Your task to perform on an android device: clear all cookies in the chrome app Image 0: 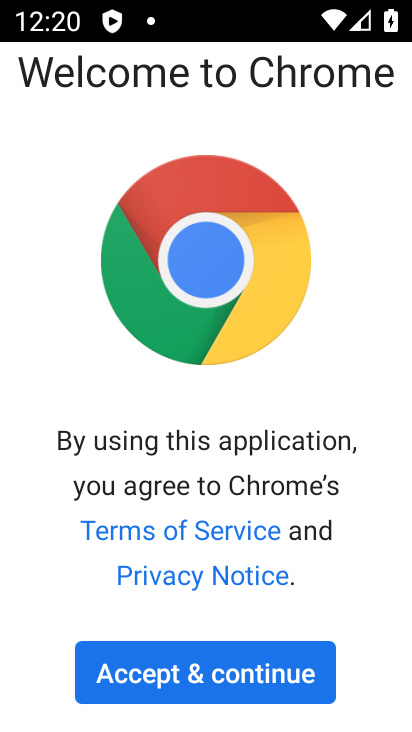
Step 0: click (178, 675)
Your task to perform on an android device: clear all cookies in the chrome app Image 1: 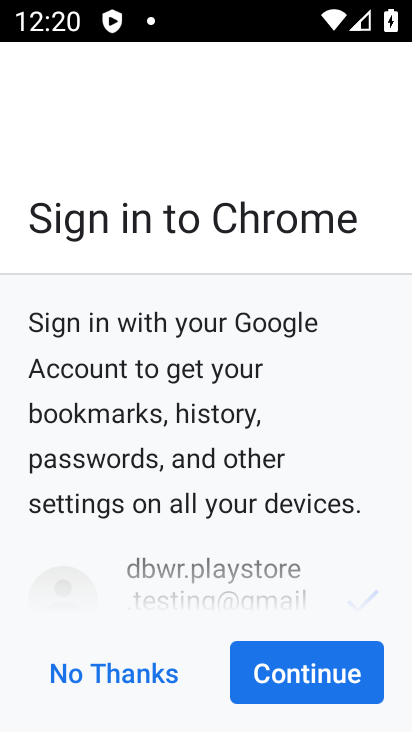
Step 1: click (312, 680)
Your task to perform on an android device: clear all cookies in the chrome app Image 2: 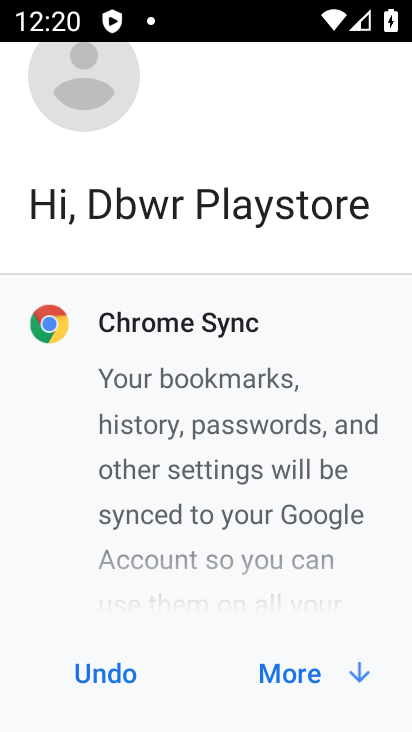
Step 2: click (312, 680)
Your task to perform on an android device: clear all cookies in the chrome app Image 3: 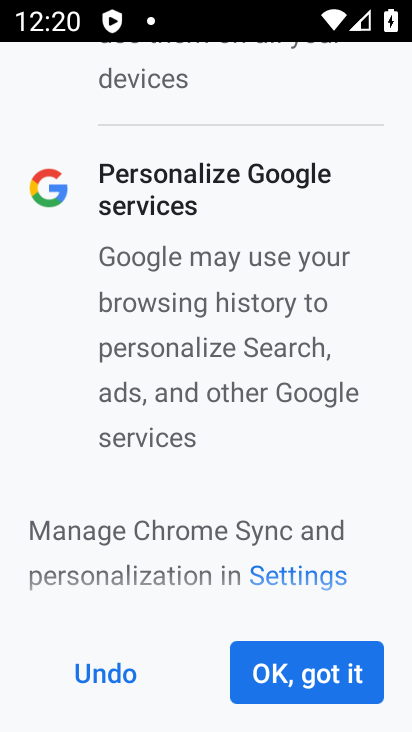
Step 3: click (312, 680)
Your task to perform on an android device: clear all cookies in the chrome app Image 4: 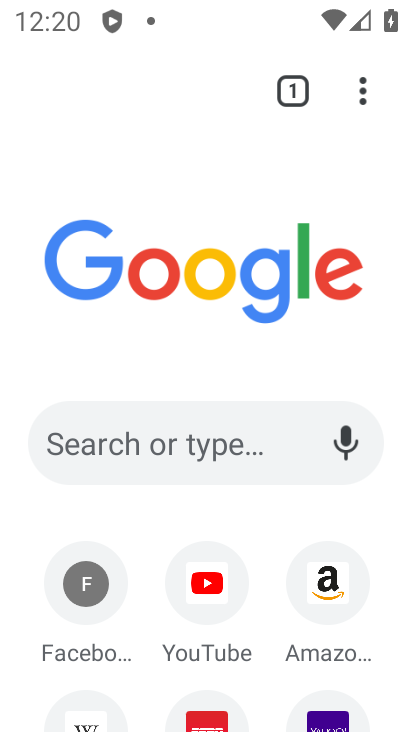
Step 4: click (363, 87)
Your task to perform on an android device: clear all cookies in the chrome app Image 5: 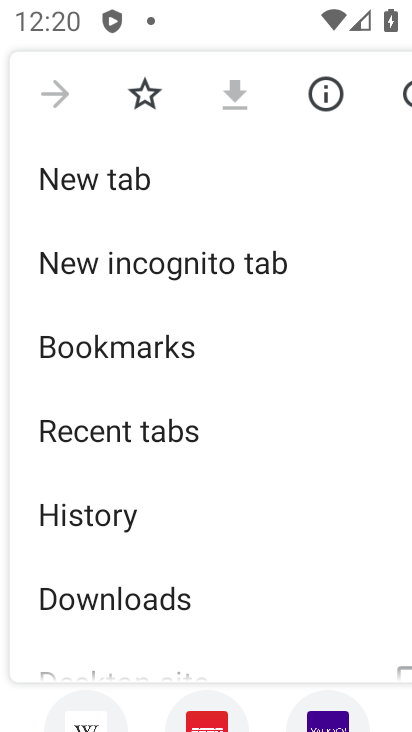
Step 5: drag from (130, 480) to (140, 351)
Your task to perform on an android device: clear all cookies in the chrome app Image 6: 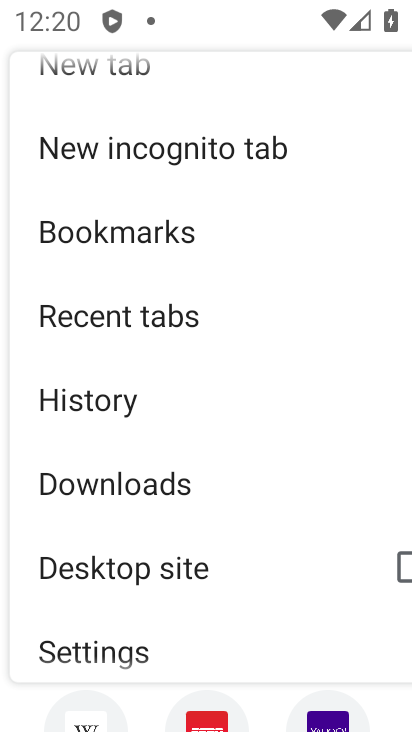
Step 6: drag from (109, 516) to (154, 348)
Your task to perform on an android device: clear all cookies in the chrome app Image 7: 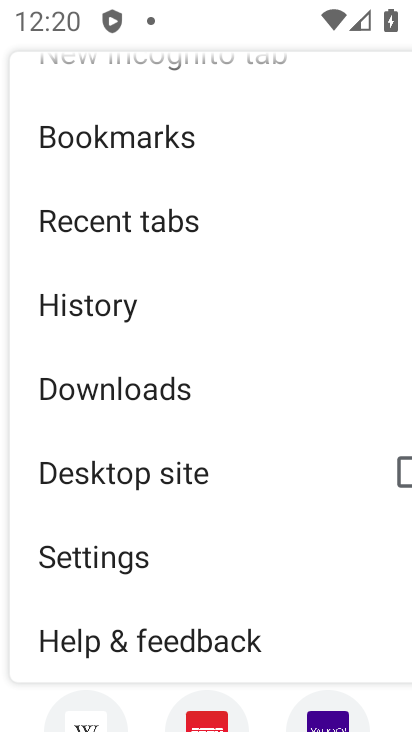
Step 7: drag from (96, 515) to (147, 352)
Your task to perform on an android device: clear all cookies in the chrome app Image 8: 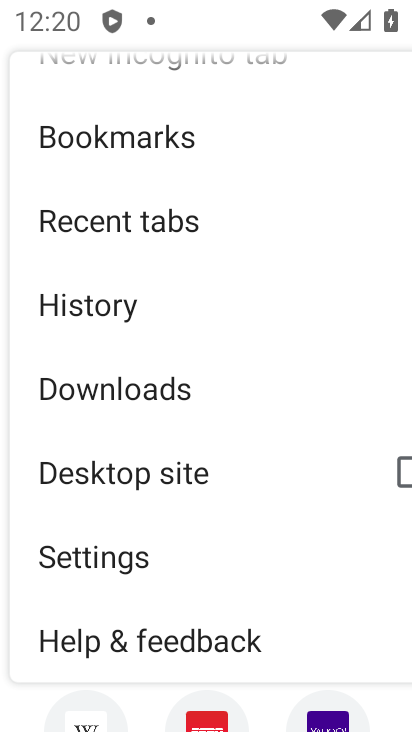
Step 8: drag from (103, 595) to (144, 326)
Your task to perform on an android device: clear all cookies in the chrome app Image 9: 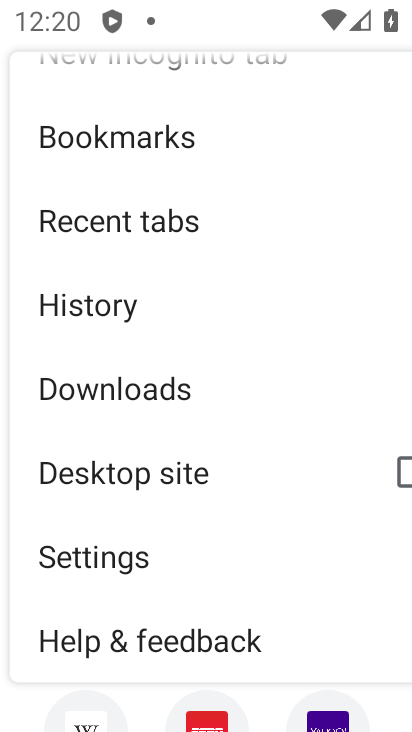
Step 9: click (88, 554)
Your task to perform on an android device: clear all cookies in the chrome app Image 10: 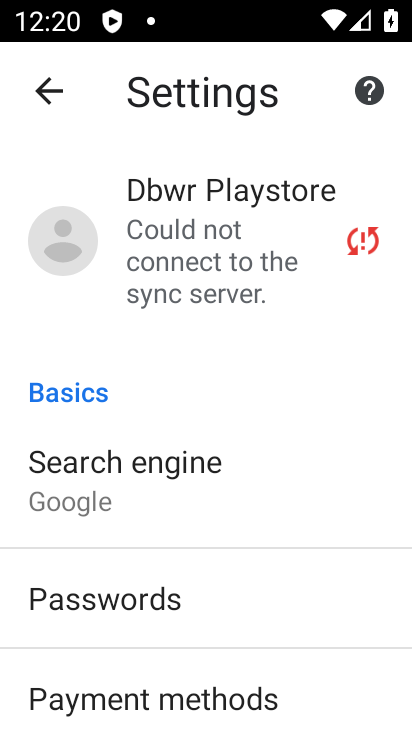
Step 10: drag from (105, 634) to (212, 373)
Your task to perform on an android device: clear all cookies in the chrome app Image 11: 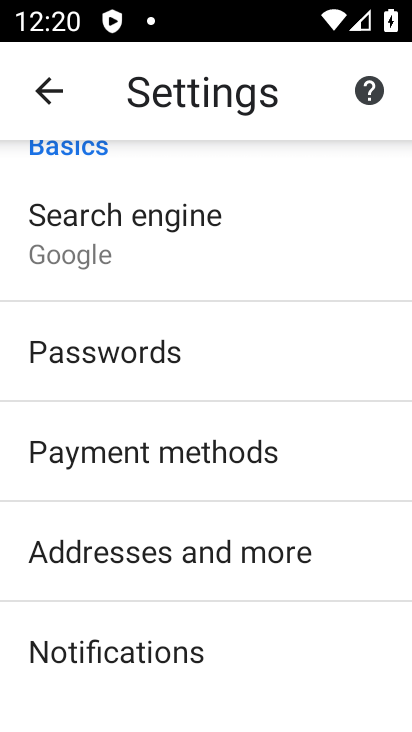
Step 11: drag from (129, 617) to (247, 385)
Your task to perform on an android device: clear all cookies in the chrome app Image 12: 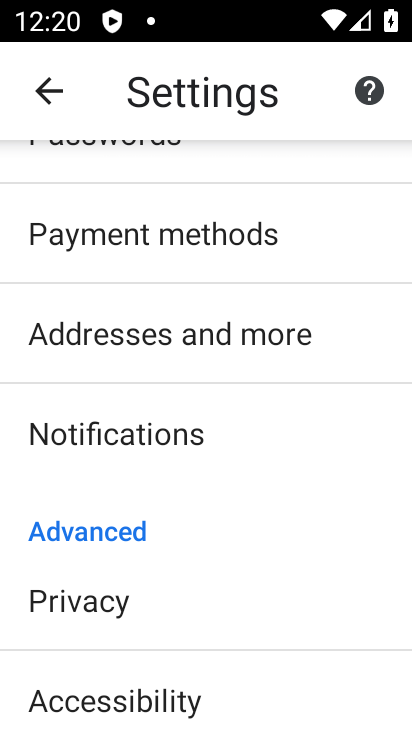
Step 12: drag from (146, 656) to (229, 432)
Your task to perform on an android device: clear all cookies in the chrome app Image 13: 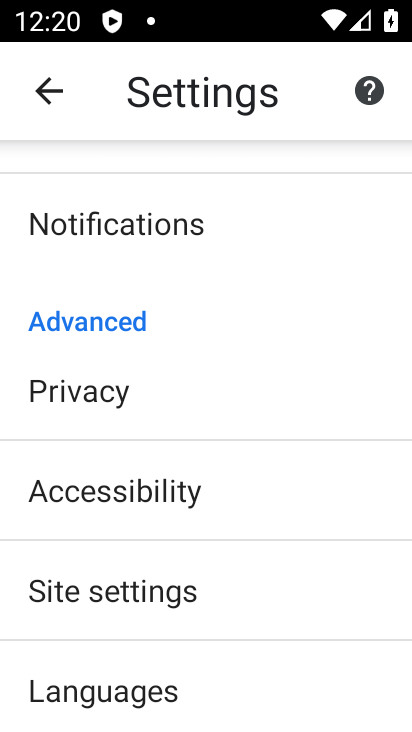
Step 13: click (79, 394)
Your task to perform on an android device: clear all cookies in the chrome app Image 14: 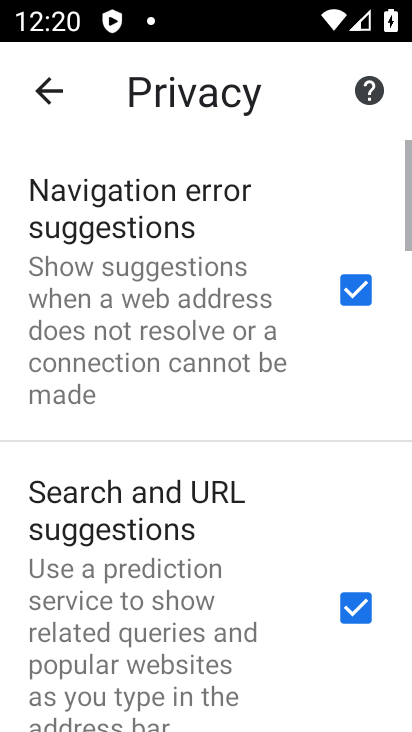
Step 14: drag from (119, 652) to (175, 327)
Your task to perform on an android device: clear all cookies in the chrome app Image 15: 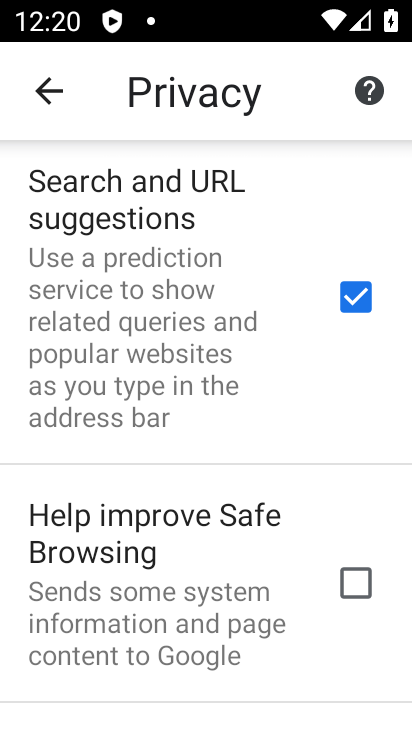
Step 15: drag from (173, 619) to (201, 345)
Your task to perform on an android device: clear all cookies in the chrome app Image 16: 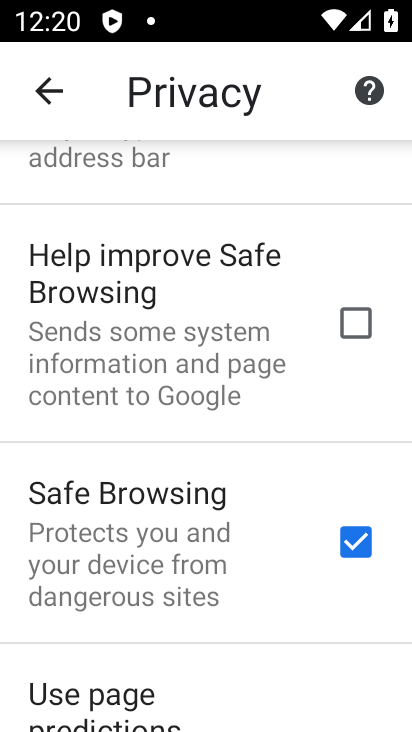
Step 16: drag from (138, 571) to (202, 366)
Your task to perform on an android device: clear all cookies in the chrome app Image 17: 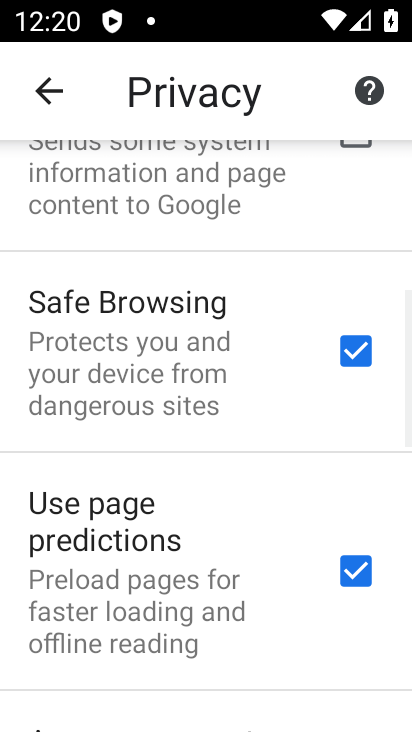
Step 17: drag from (144, 606) to (210, 387)
Your task to perform on an android device: clear all cookies in the chrome app Image 18: 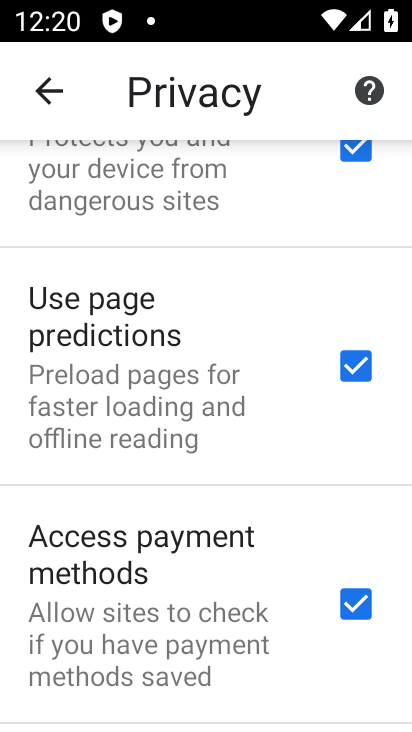
Step 18: drag from (110, 650) to (172, 421)
Your task to perform on an android device: clear all cookies in the chrome app Image 19: 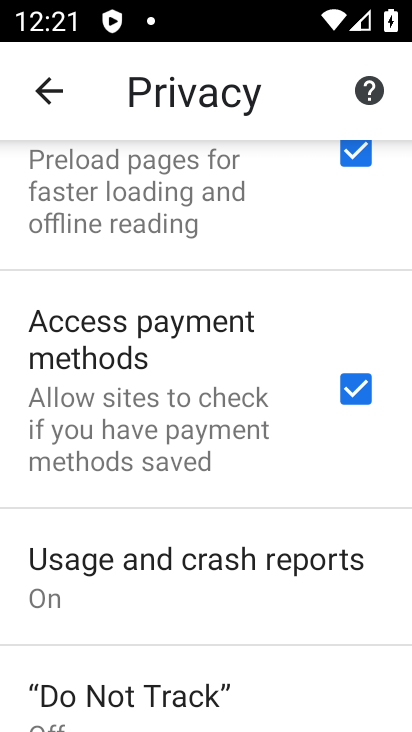
Step 19: drag from (148, 626) to (226, 462)
Your task to perform on an android device: clear all cookies in the chrome app Image 20: 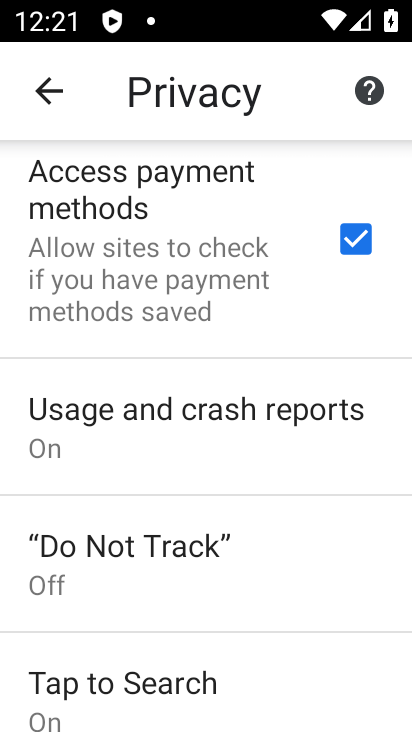
Step 20: drag from (144, 710) to (267, 490)
Your task to perform on an android device: clear all cookies in the chrome app Image 21: 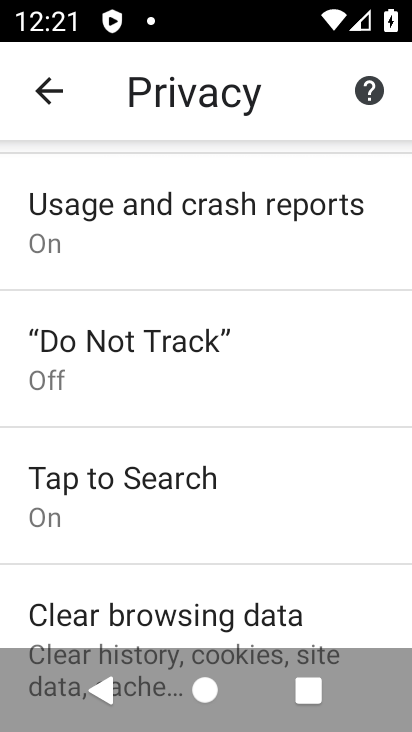
Step 21: drag from (191, 585) to (294, 413)
Your task to perform on an android device: clear all cookies in the chrome app Image 22: 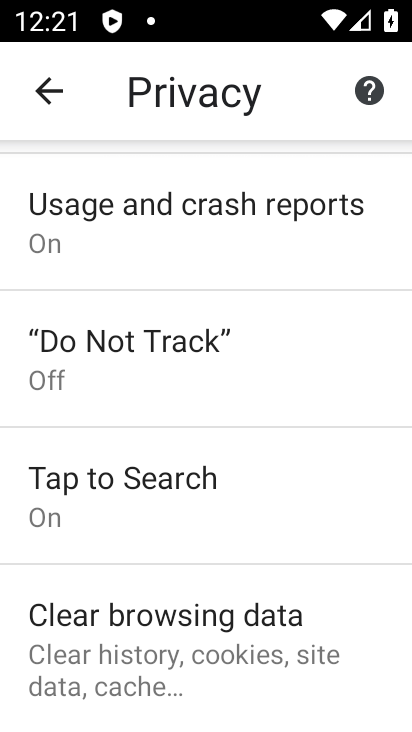
Step 22: click (192, 621)
Your task to perform on an android device: clear all cookies in the chrome app Image 23: 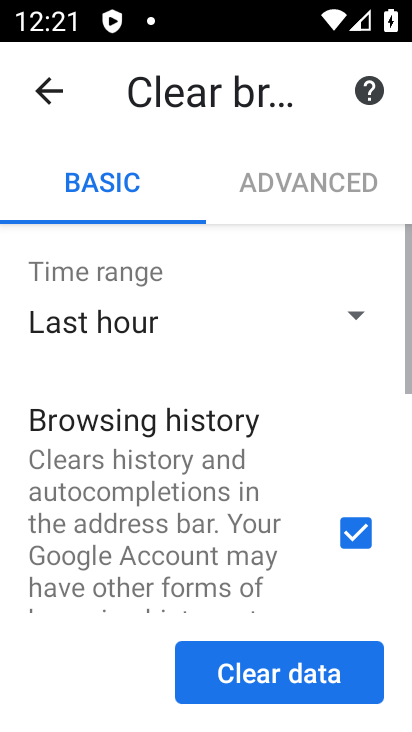
Step 23: click (369, 543)
Your task to perform on an android device: clear all cookies in the chrome app Image 24: 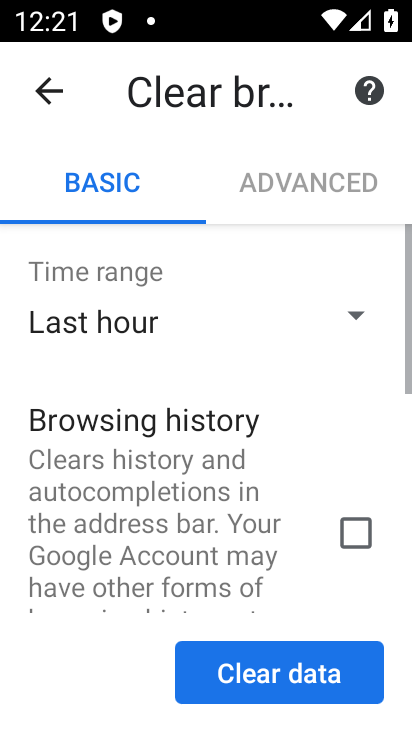
Step 24: click (356, 303)
Your task to perform on an android device: clear all cookies in the chrome app Image 25: 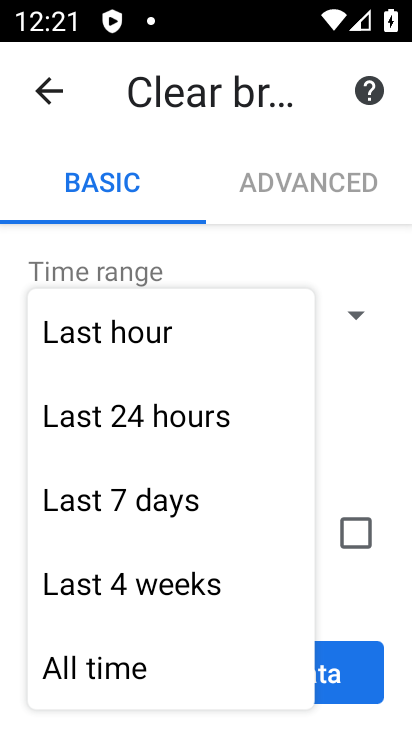
Step 25: click (87, 668)
Your task to perform on an android device: clear all cookies in the chrome app Image 26: 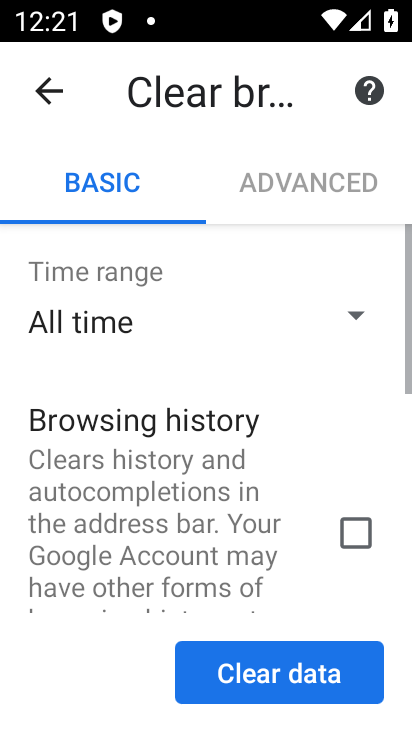
Step 26: drag from (302, 576) to (312, 296)
Your task to perform on an android device: clear all cookies in the chrome app Image 27: 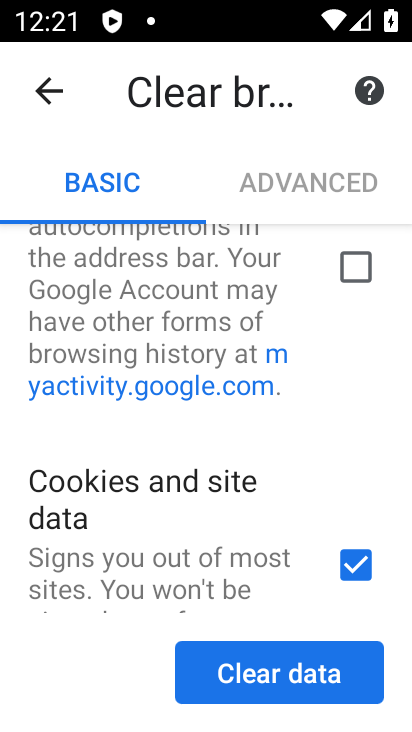
Step 27: click (331, 678)
Your task to perform on an android device: clear all cookies in the chrome app Image 28: 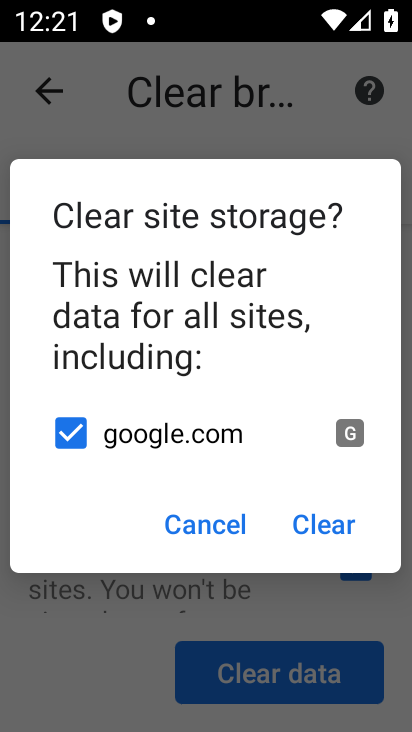
Step 28: click (326, 525)
Your task to perform on an android device: clear all cookies in the chrome app Image 29: 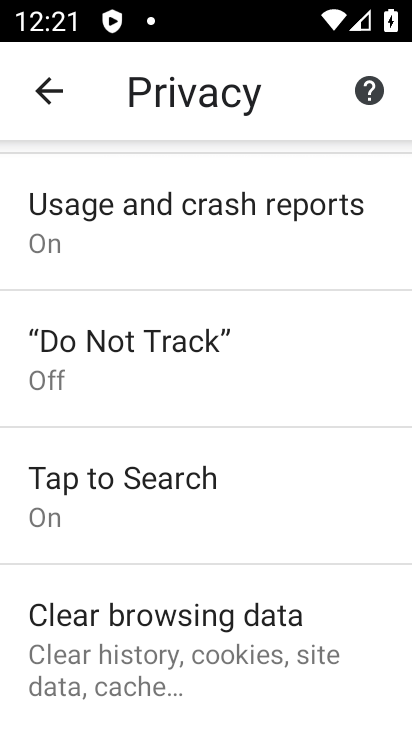
Step 29: task complete